Your task to perform on an android device: Open settings Image 0: 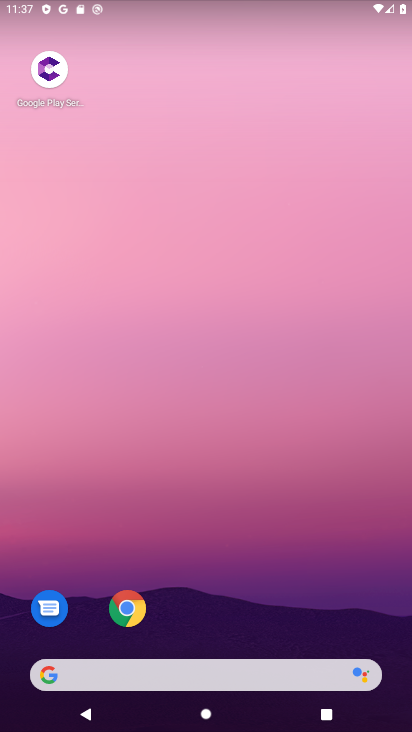
Step 0: drag from (208, 637) to (236, 91)
Your task to perform on an android device: Open settings Image 1: 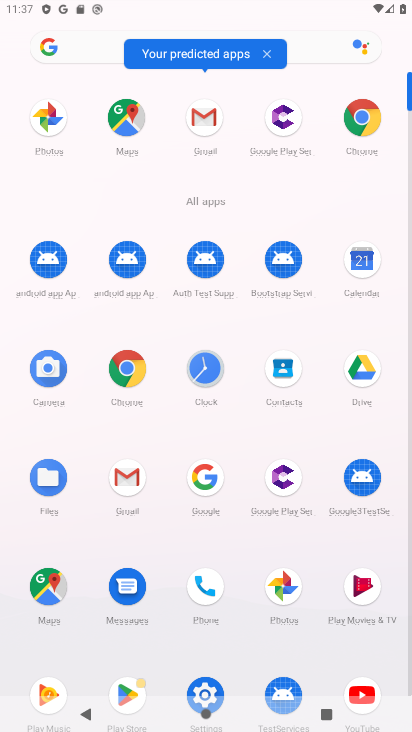
Step 1: drag from (202, 609) to (177, 98)
Your task to perform on an android device: Open settings Image 2: 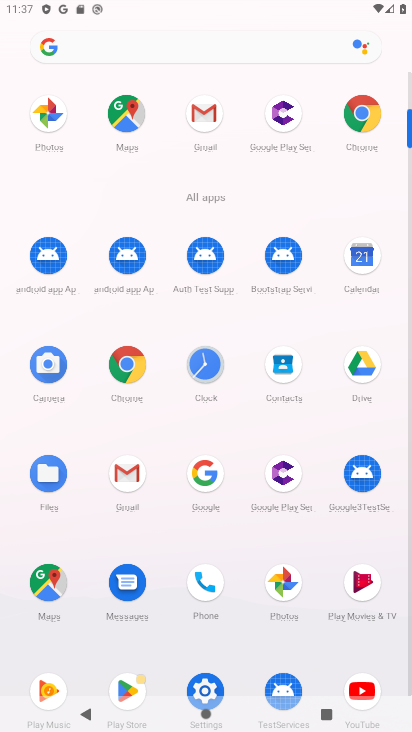
Step 2: drag from (157, 649) to (166, 291)
Your task to perform on an android device: Open settings Image 3: 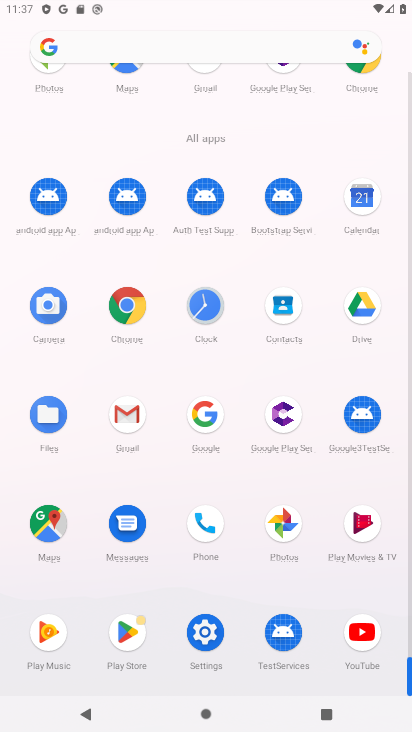
Step 3: click (200, 626)
Your task to perform on an android device: Open settings Image 4: 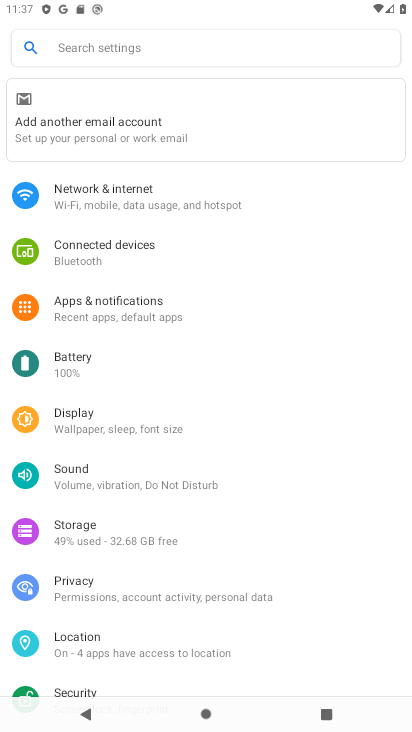
Step 4: task complete